Your task to perform on an android device: add a contact Image 0: 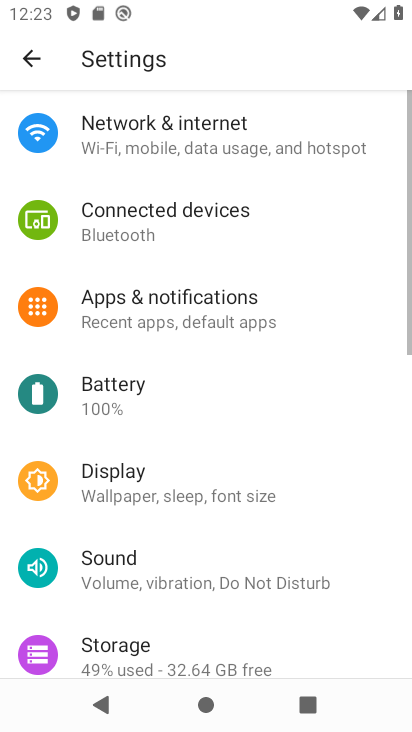
Step 0: press back button
Your task to perform on an android device: add a contact Image 1: 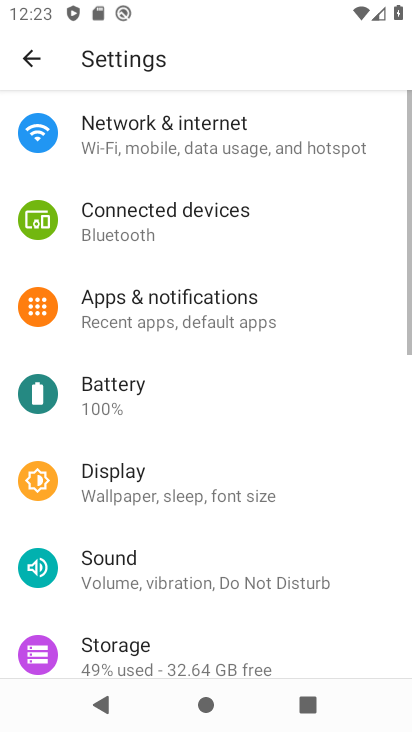
Step 1: press back button
Your task to perform on an android device: add a contact Image 2: 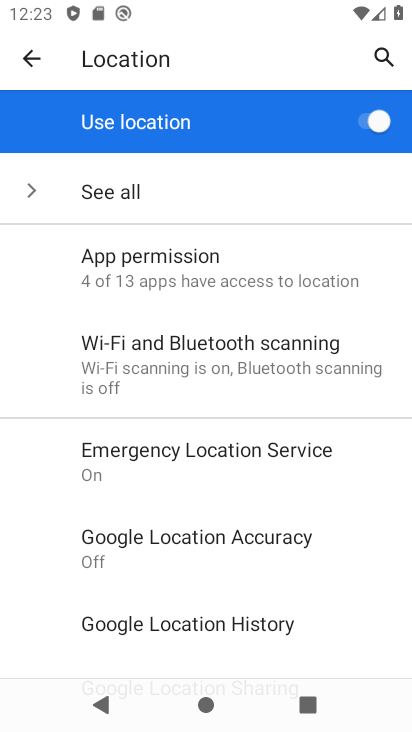
Step 2: press home button
Your task to perform on an android device: add a contact Image 3: 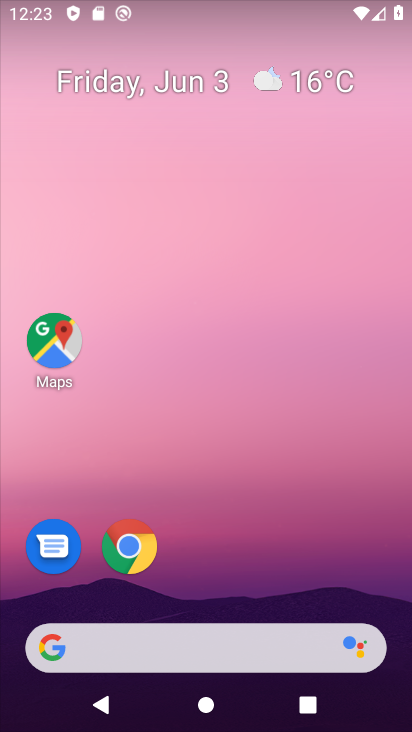
Step 3: drag from (227, 540) to (330, 60)
Your task to perform on an android device: add a contact Image 4: 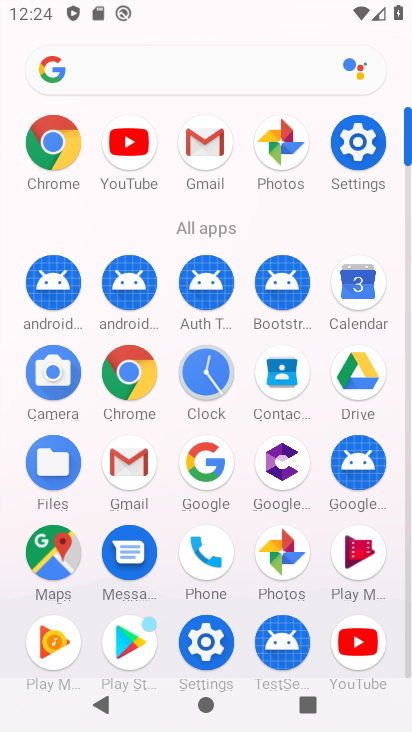
Step 4: click (279, 369)
Your task to perform on an android device: add a contact Image 5: 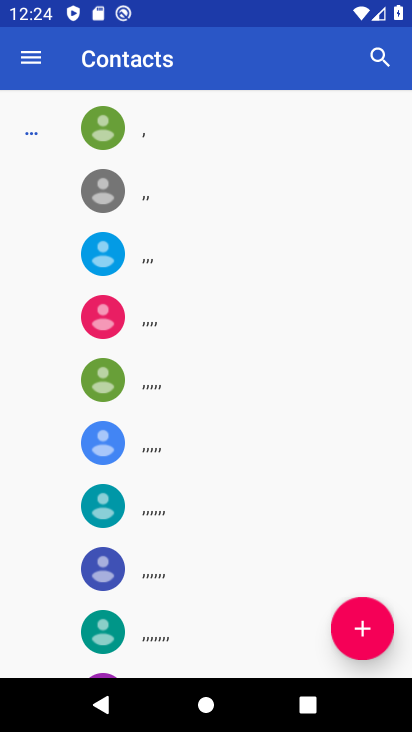
Step 5: click (369, 622)
Your task to perform on an android device: add a contact Image 6: 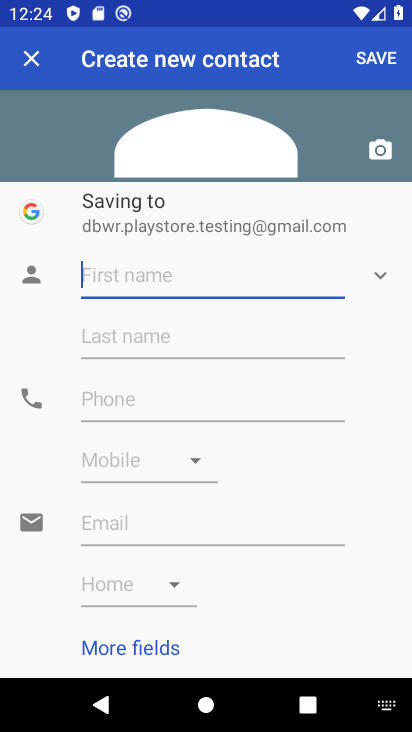
Step 6: click (138, 284)
Your task to perform on an android device: add a contact Image 7: 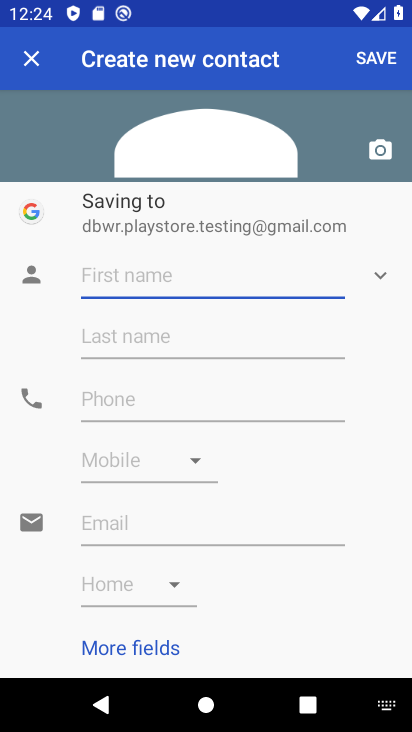
Step 7: type "vgfv"
Your task to perform on an android device: add a contact Image 8: 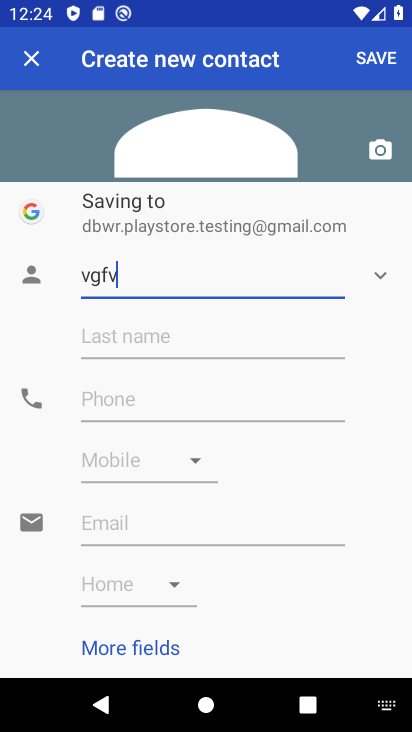
Step 8: click (168, 399)
Your task to perform on an android device: add a contact Image 9: 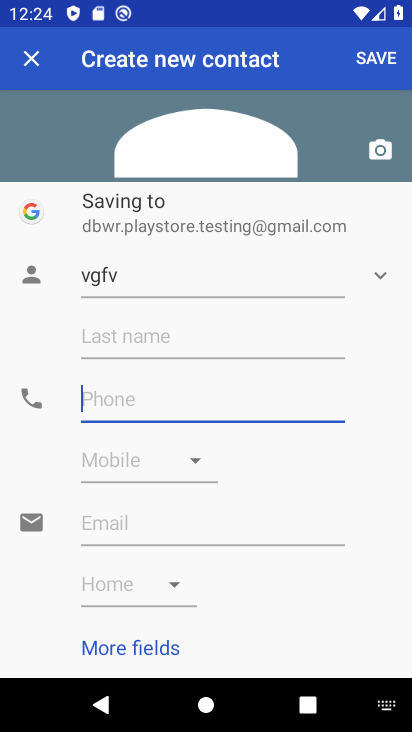
Step 9: type "7977"
Your task to perform on an android device: add a contact Image 10: 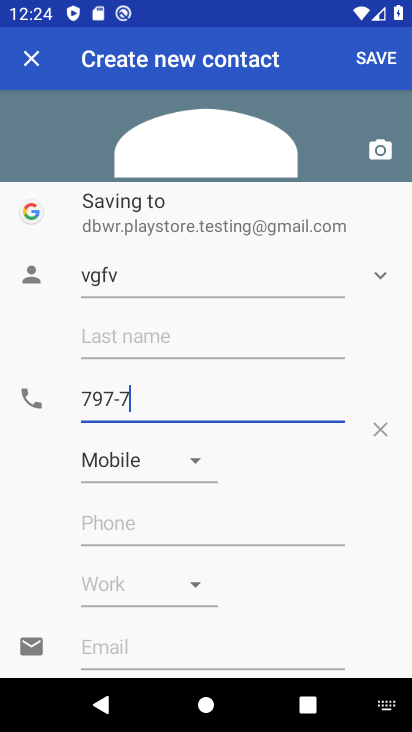
Step 10: click (376, 49)
Your task to perform on an android device: add a contact Image 11: 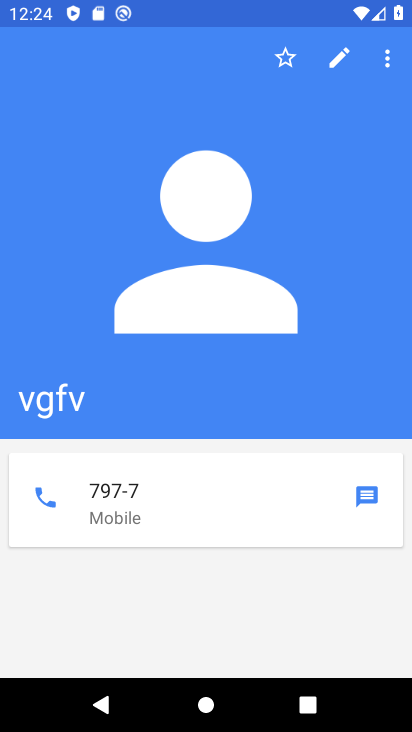
Step 11: task complete